Your task to perform on an android device: Go to Wikipedia Image 0: 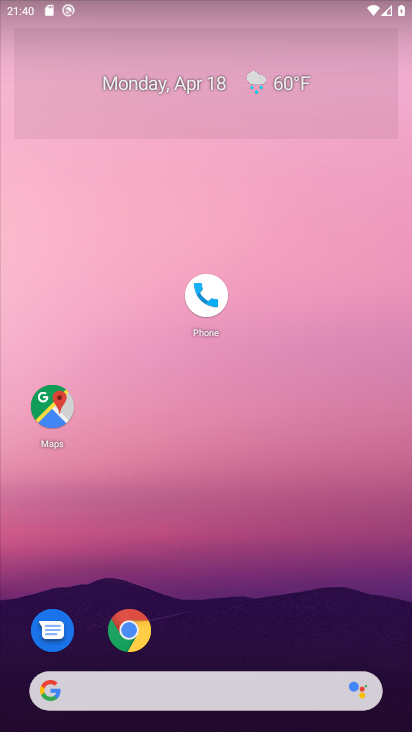
Step 0: drag from (337, 580) to (333, 134)
Your task to perform on an android device: Go to Wikipedia Image 1: 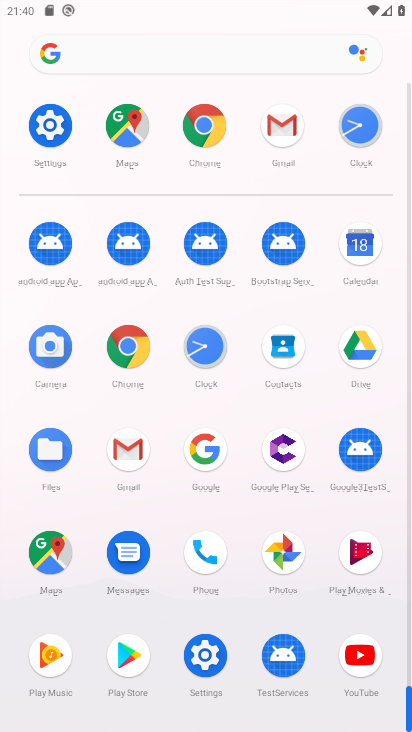
Step 1: click (136, 347)
Your task to perform on an android device: Go to Wikipedia Image 2: 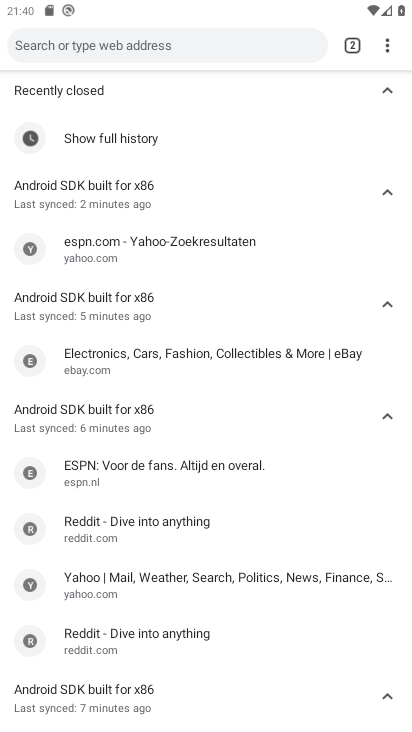
Step 2: click (198, 40)
Your task to perform on an android device: Go to Wikipedia Image 3: 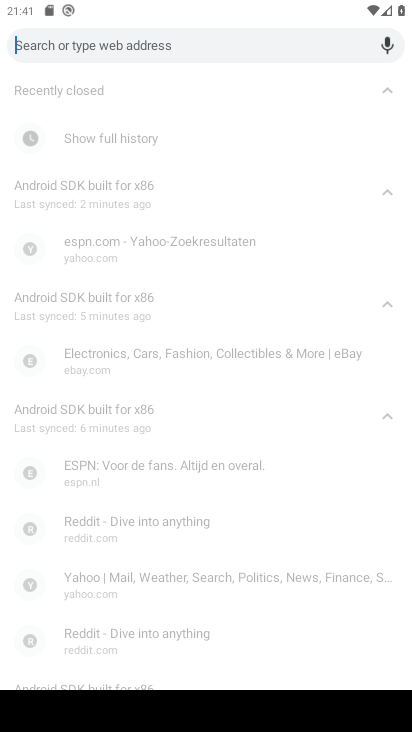
Step 3: type "wikipedia"
Your task to perform on an android device: Go to Wikipedia Image 4: 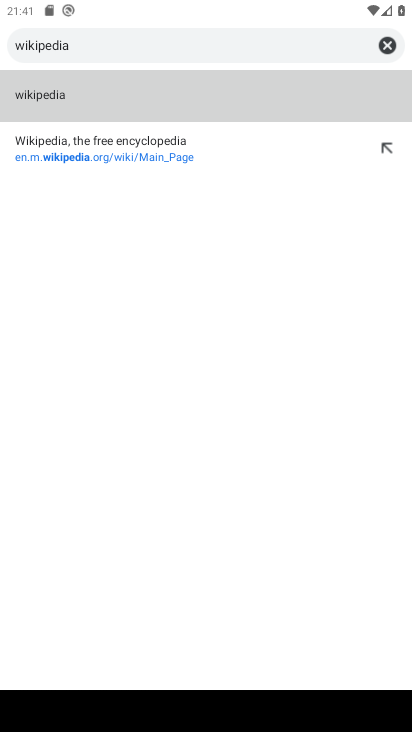
Step 4: press enter
Your task to perform on an android device: Go to Wikipedia Image 5: 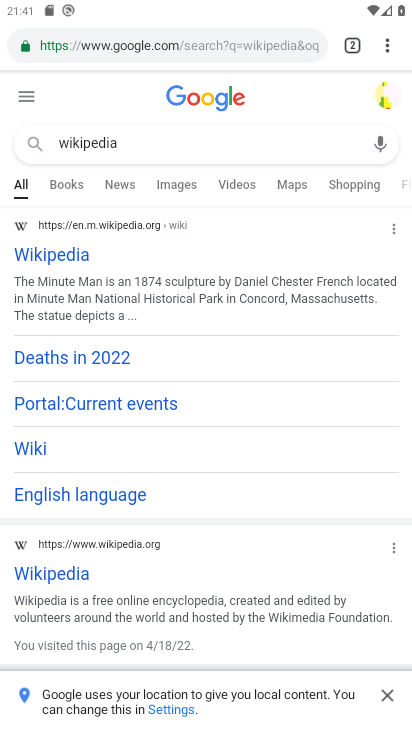
Step 5: click (31, 249)
Your task to perform on an android device: Go to Wikipedia Image 6: 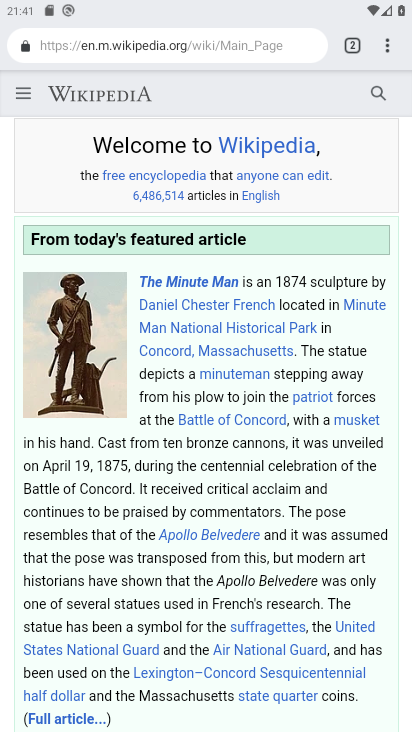
Step 6: task complete